Your task to perform on an android device: Show the shopping cart on costco.com. Image 0: 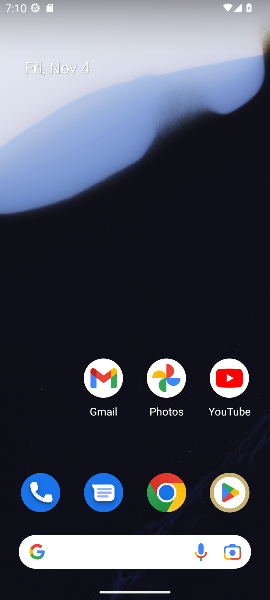
Step 0: drag from (136, 449) to (122, 35)
Your task to perform on an android device: Show the shopping cart on costco.com. Image 1: 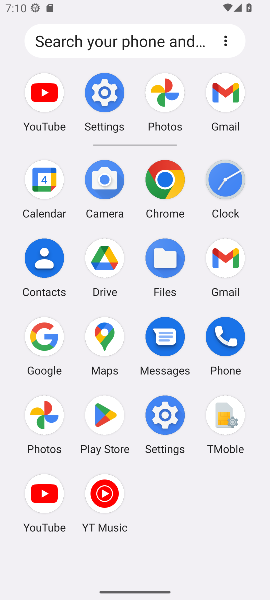
Step 1: click (167, 187)
Your task to perform on an android device: Show the shopping cart on costco.com. Image 2: 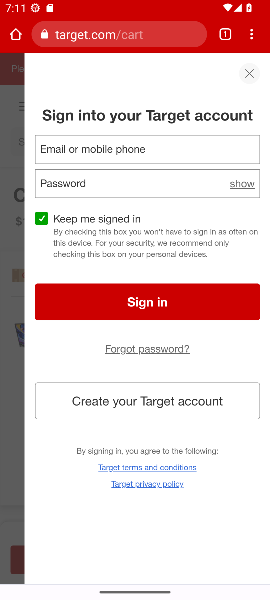
Step 2: click (113, 36)
Your task to perform on an android device: Show the shopping cart on costco.com. Image 3: 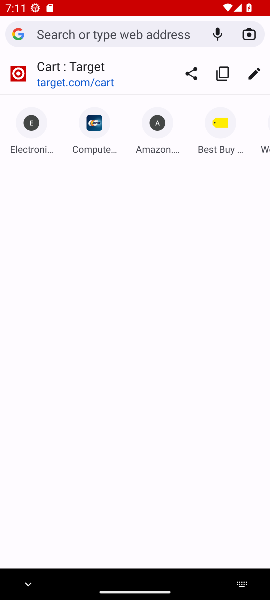
Step 3: type "costco.com"
Your task to perform on an android device: Show the shopping cart on costco.com. Image 4: 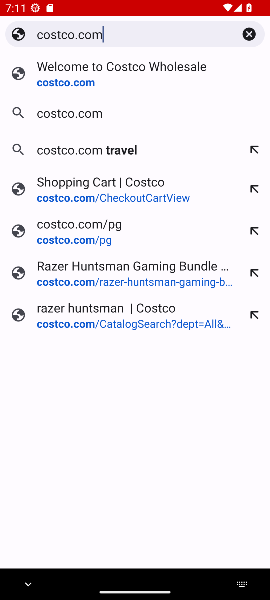
Step 4: press enter
Your task to perform on an android device: Show the shopping cart on costco.com. Image 5: 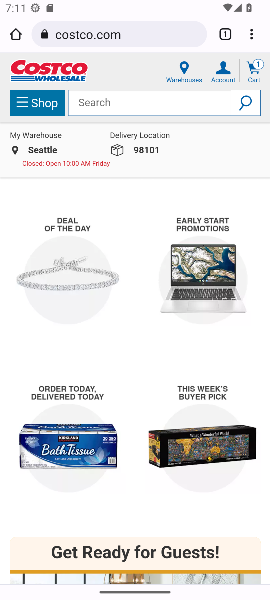
Step 5: click (254, 69)
Your task to perform on an android device: Show the shopping cart on costco.com. Image 6: 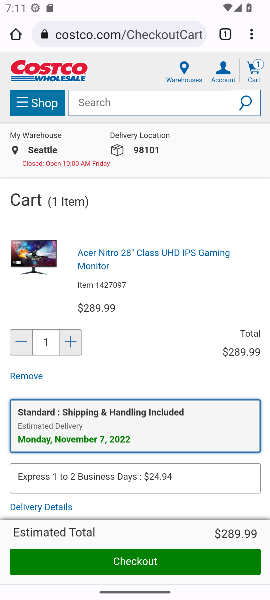
Step 6: task complete